Your task to perform on an android device: Check the news Image 0: 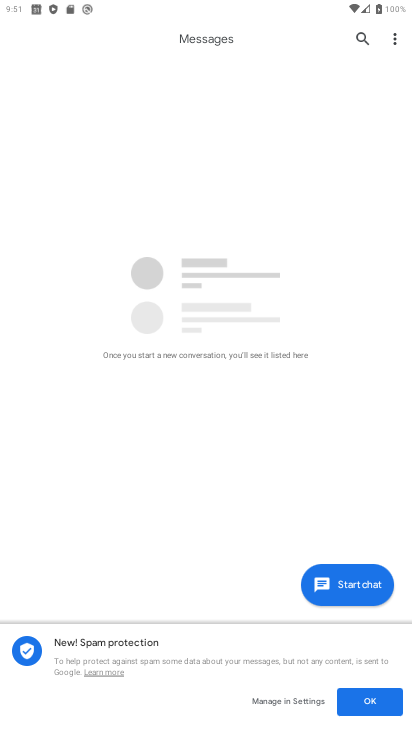
Step 0: press back button
Your task to perform on an android device: Check the news Image 1: 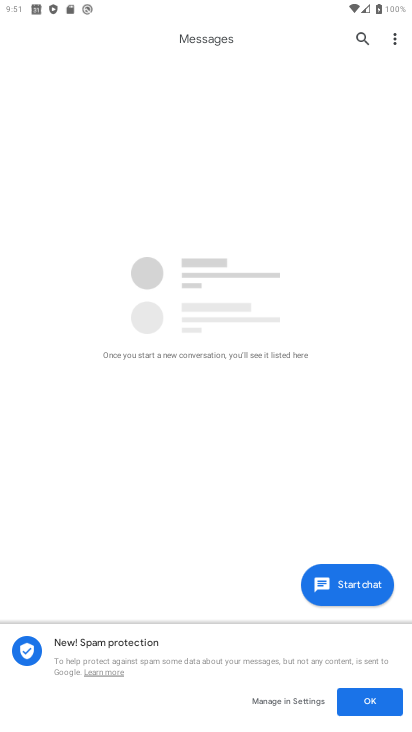
Step 1: press back button
Your task to perform on an android device: Check the news Image 2: 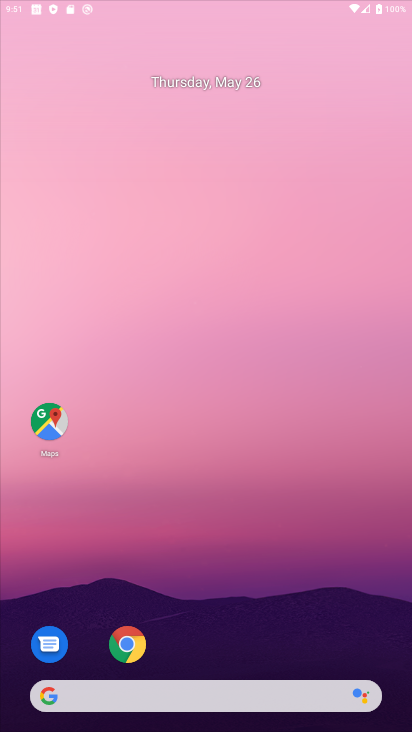
Step 2: press back button
Your task to perform on an android device: Check the news Image 3: 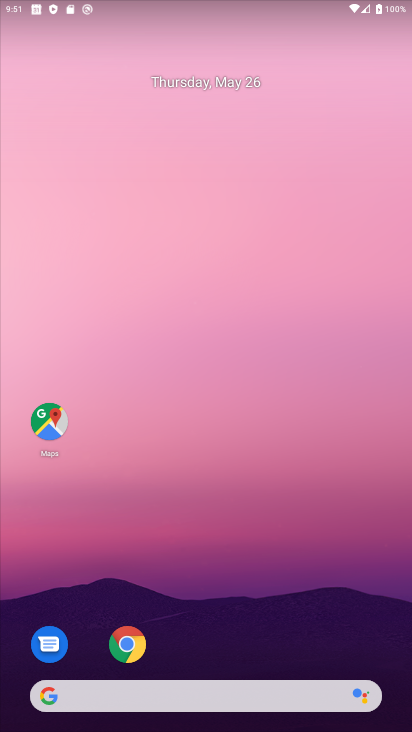
Step 3: press back button
Your task to perform on an android device: Check the news Image 4: 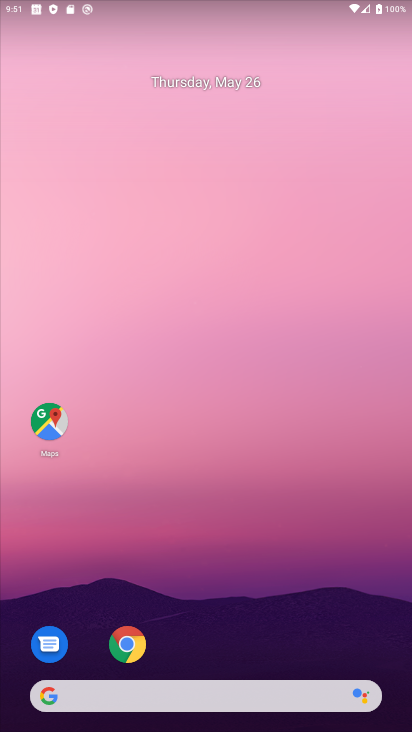
Step 4: press back button
Your task to perform on an android device: Check the news Image 5: 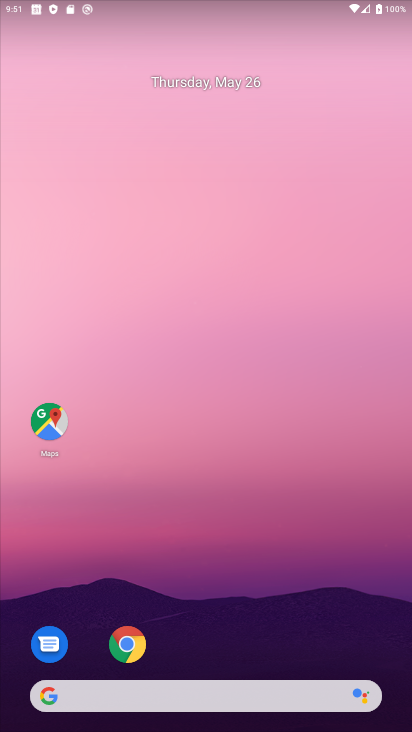
Step 5: drag from (32, 242) to (394, 387)
Your task to perform on an android device: Check the news Image 6: 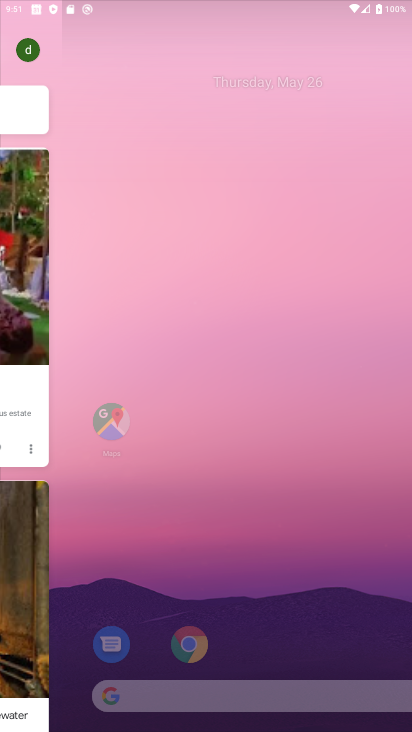
Step 6: drag from (37, 230) to (390, 379)
Your task to perform on an android device: Check the news Image 7: 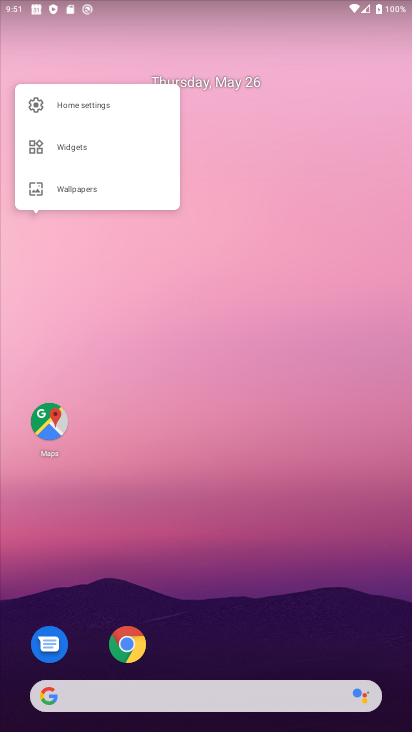
Step 7: drag from (114, 314) to (325, 418)
Your task to perform on an android device: Check the news Image 8: 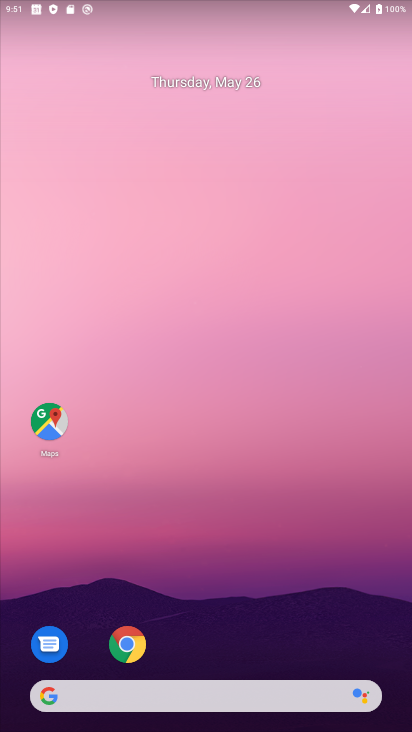
Step 8: click (386, 372)
Your task to perform on an android device: Check the news Image 9: 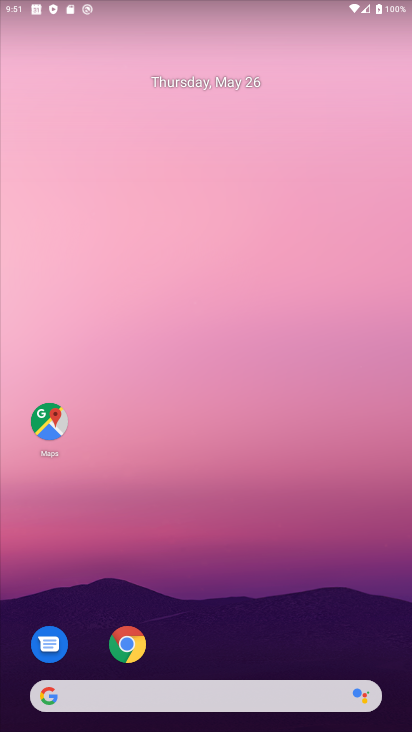
Step 9: drag from (177, 310) to (381, 351)
Your task to perform on an android device: Check the news Image 10: 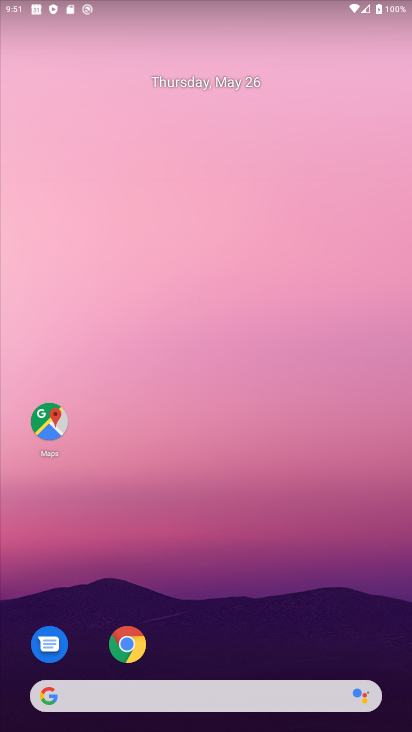
Step 10: drag from (275, 312) to (370, 432)
Your task to perform on an android device: Check the news Image 11: 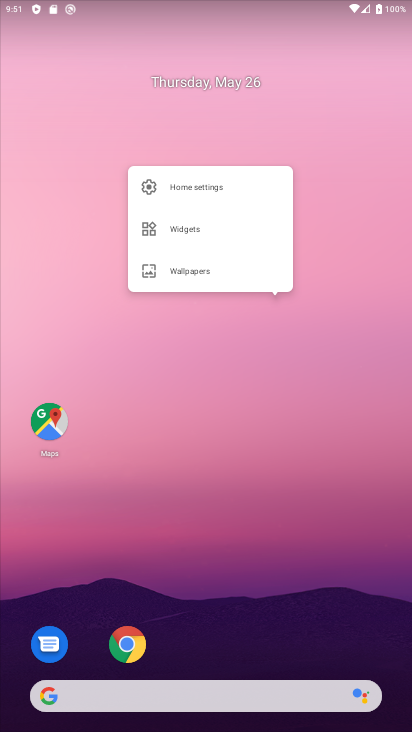
Step 11: press back button
Your task to perform on an android device: Check the news Image 12: 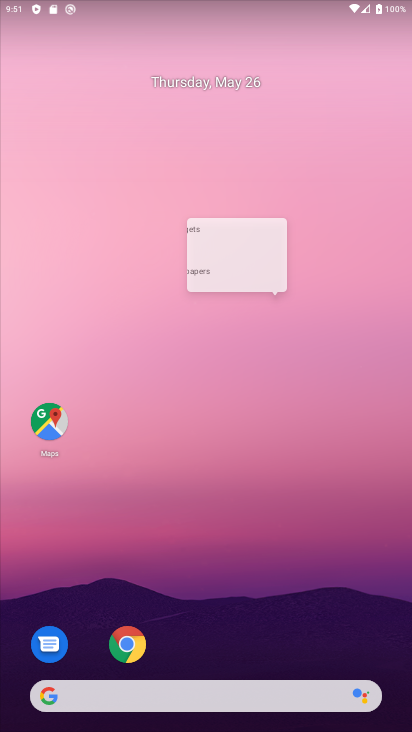
Step 12: press back button
Your task to perform on an android device: Check the news Image 13: 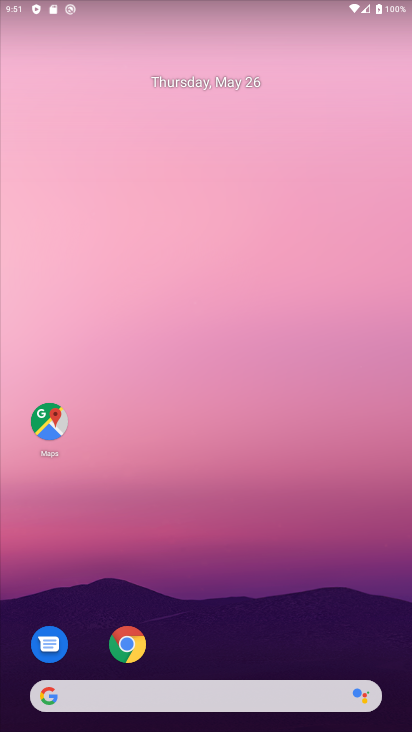
Step 13: press back button
Your task to perform on an android device: Check the news Image 14: 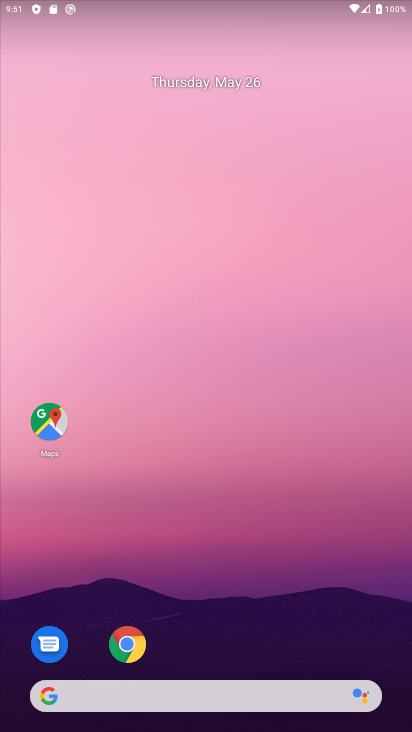
Step 14: press back button
Your task to perform on an android device: Check the news Image 15: 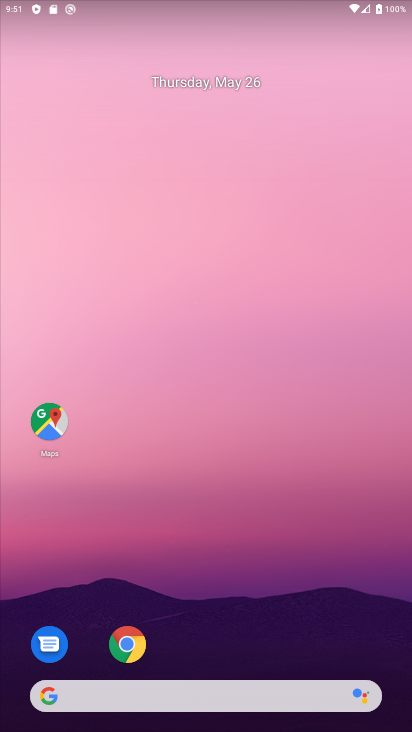
Step 15: press back button
Your task to perform on an android device: Check the news Image 16: 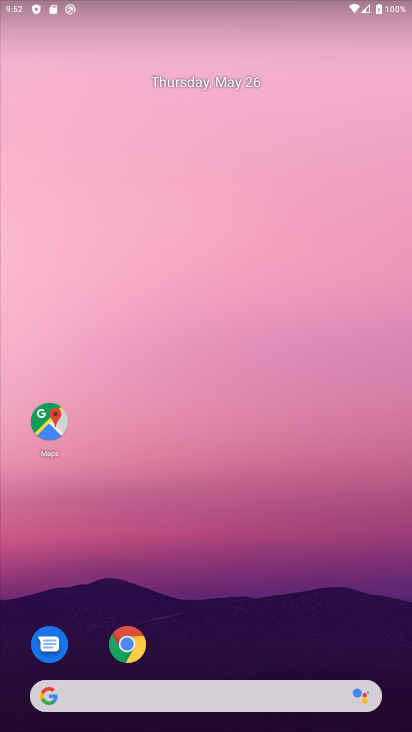
Step 16: click (250, 688)
Your task to perform on an android device: Check the news Image 17: 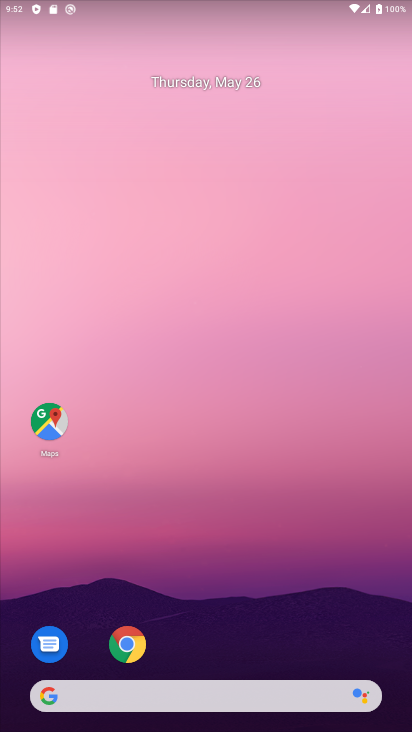
Step 17: drag from (34, 266) to (346, 316)
Your task to perform on an android device: Check the news Image 18: 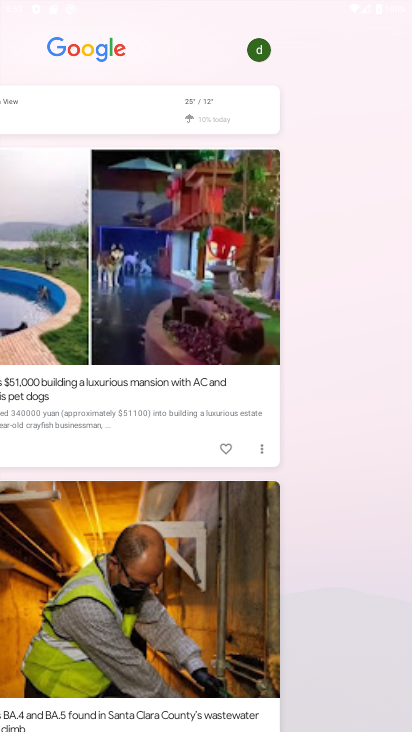
Step 18: drag from (10, 265) to (386, 394)
Your task to perform on an android device: Check the news Image 19: 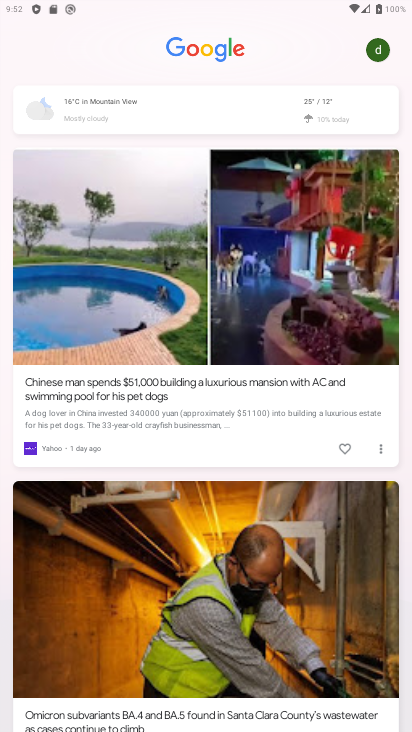
Step 19: drag from (243, 503) to (221, 150)
Your task to perform on an android device: Check the news Image 20: 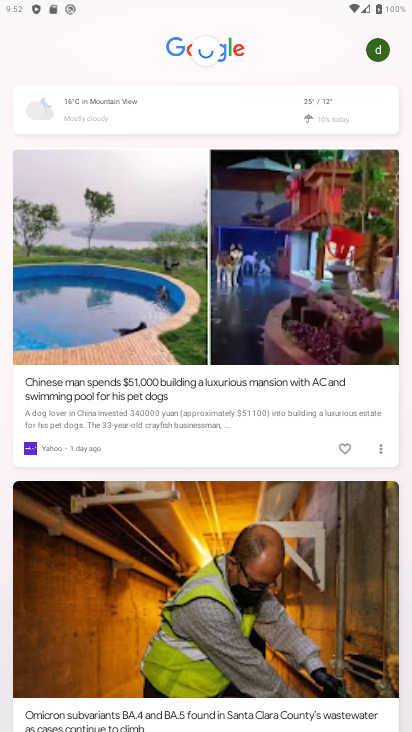
Step 20: click (176, 120)
Your task to perform on an android device: Check the news Image 21: 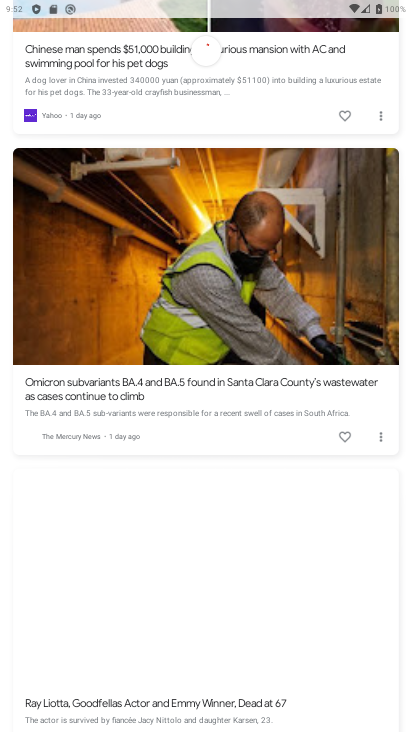
Step 21: drag from (220, 388) to (243, 171)
Your task to perform on an android device: Check the news Image 22: 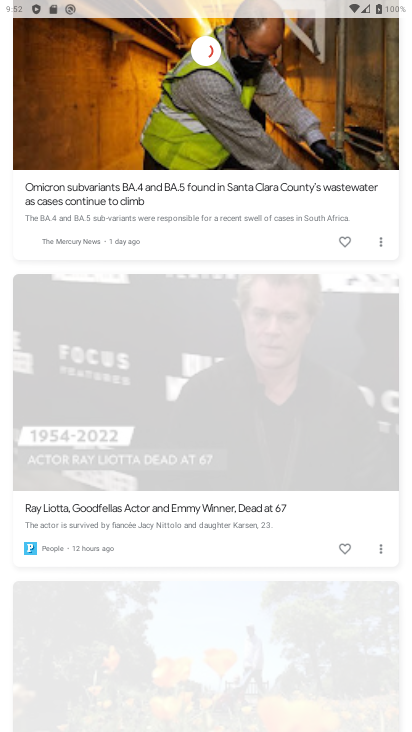
Step 22: click (280, 199)
Your task to perform on an android device: Check the news Image 23: 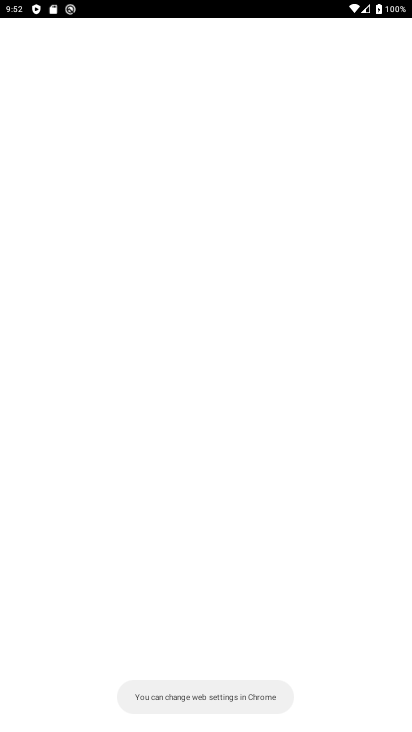
Step 23: task complete